Your task to perform on an android device: Open the web browser Image 0: 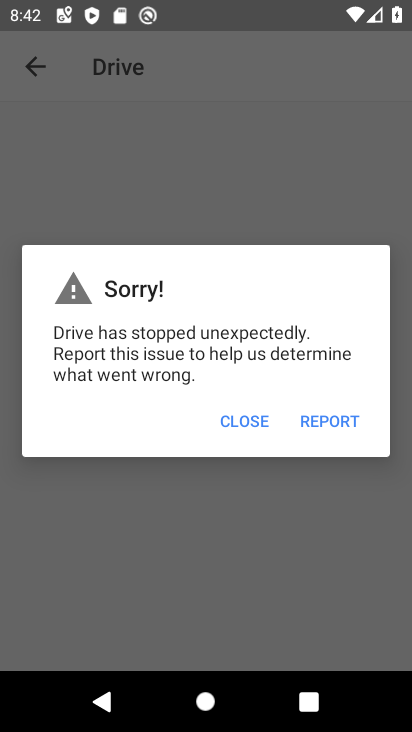
Step 0: press home button
Your task to perform on an android device: Open the web browser Image 1: 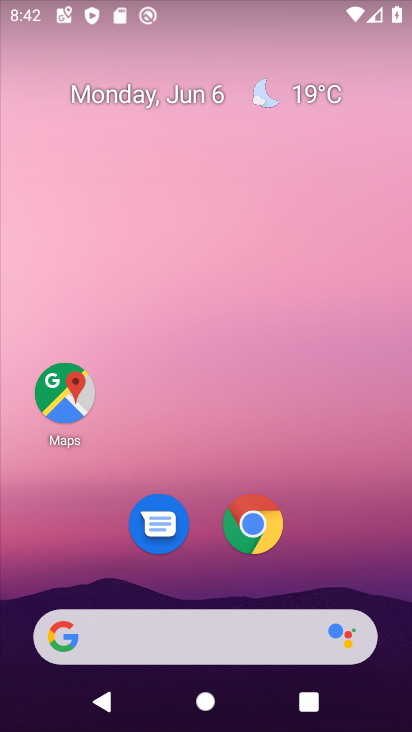
Step 1: click (224, 640)
Your task to perform on an android device: Open the web browser Image 2: 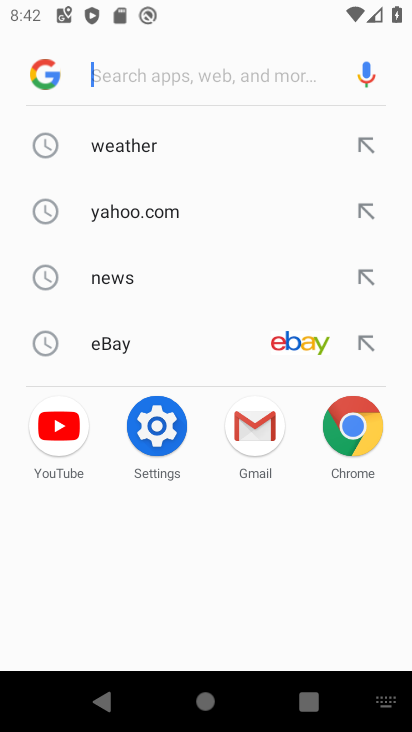
Step 2: task complete